Your task to perform on an android device: Go to sound settings Image 0: 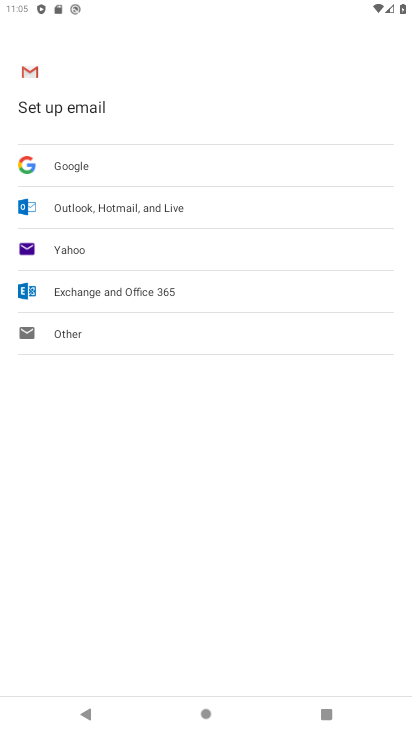
Step 0: press home button
Your task to perform on an android device: Go to sound settings Image 1: 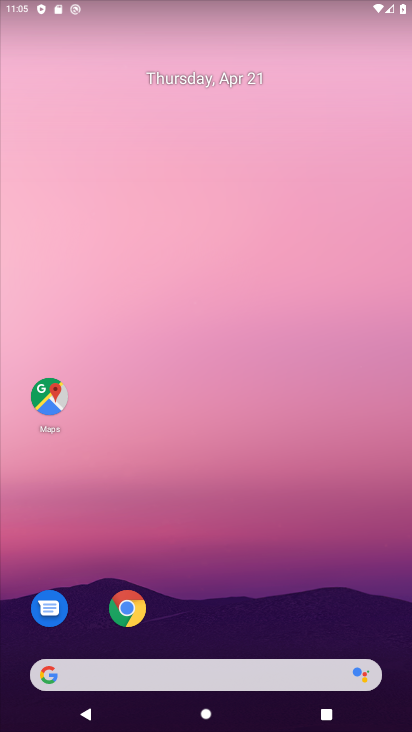
Step 1: drag from (211, 576) to (241, 250)
Your task to perform on an android device: Go to sound settings Image 2: 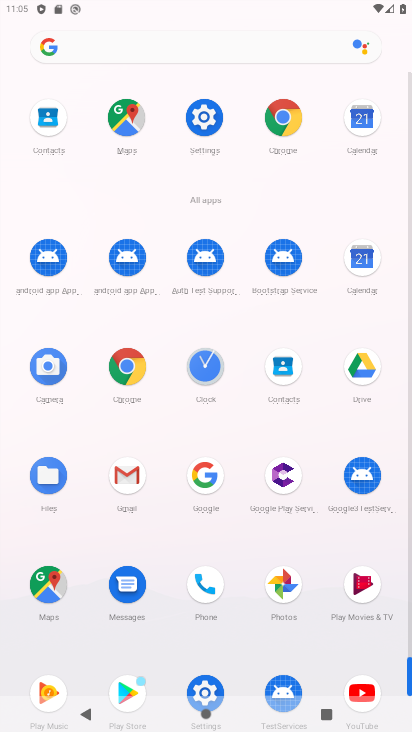
Step 2: click (199, 117)
Your task to perform on an android device: Go to sound settings Image 3: 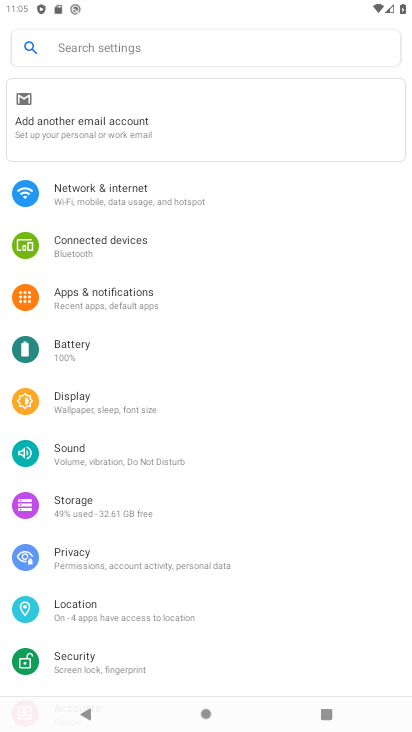
Step 3: click (98, 461)
Your task to perform on an android device: Go to sound settings Image 4: 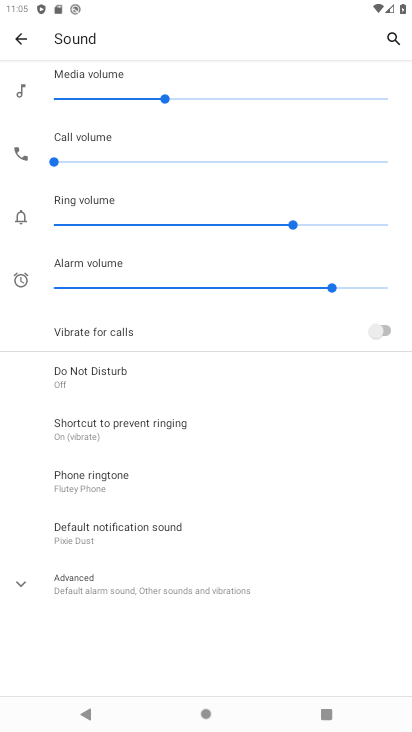
Step 4: task complete